Your task to perform on an android device: Go to accessibility settings Image 0: 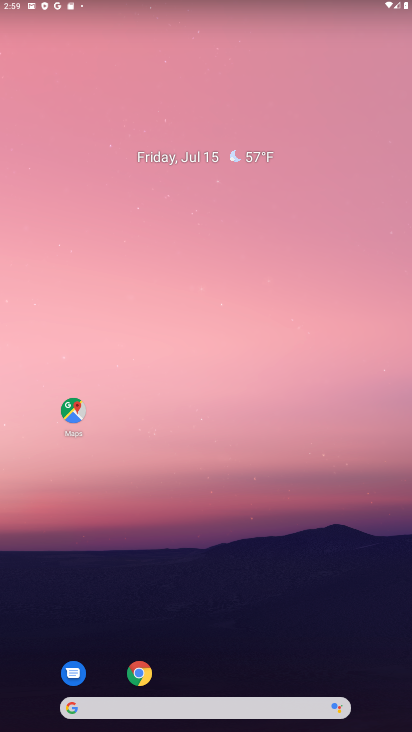
Step 0: click (188, 158)
Your task to perform on an android device: Go to accessibility settings Image 1: 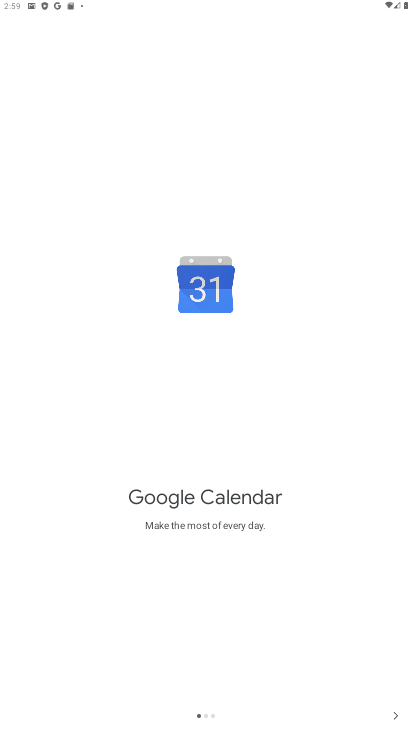
Step 1: press home button
Your task to perform on an android device: Go to accessibility settings Image 2: 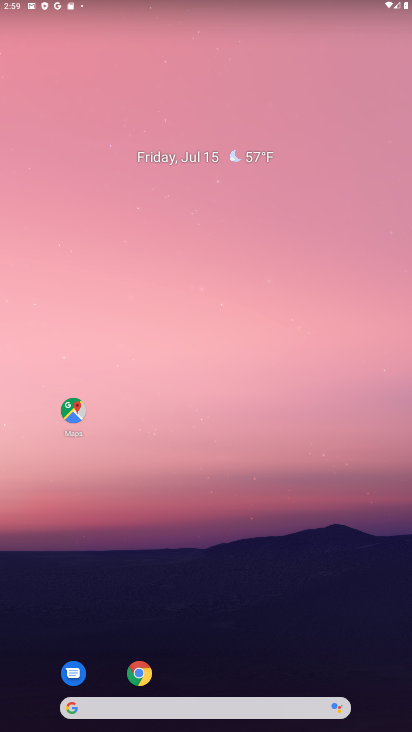
Step 2: drag from (193, 430) to (193, 154)
Your task to perform on an android device: Go to accessibility settings Image 3: 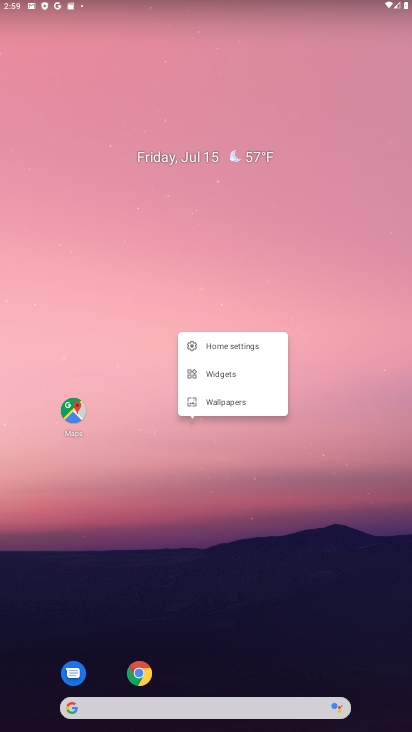
Step 3: click (192, 621)
Your task to perform on an android device: Go to accessibility settings Image 4: 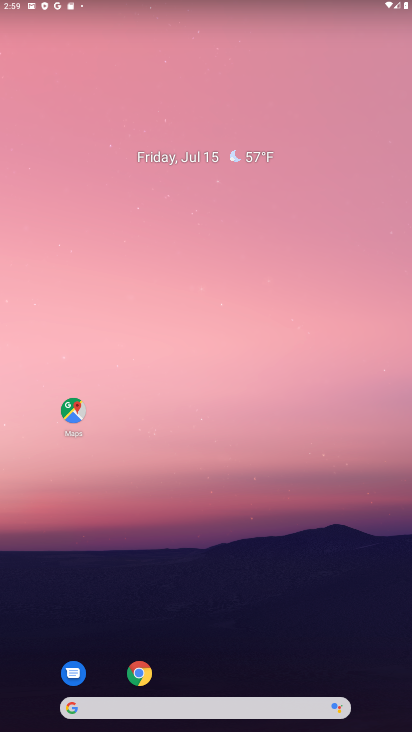
Step 4: drag from (188, 644) to (192, 117)
Your task to perform on an android device: Go to accessibility settings Image 5: 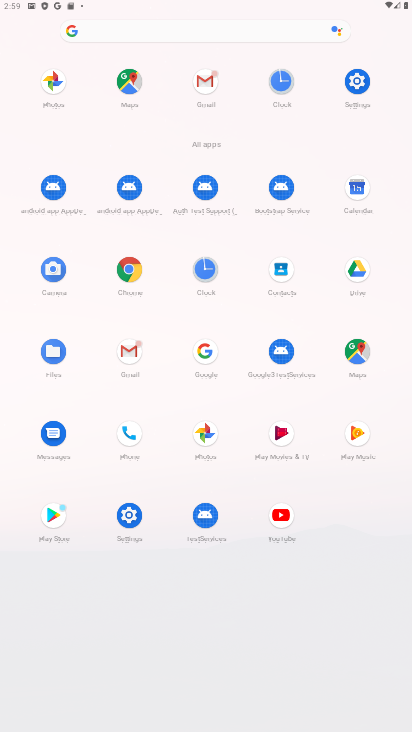
Step 5: click (357, 82)
Your task to perform on an android device: Go to accessibility settings Image 6: 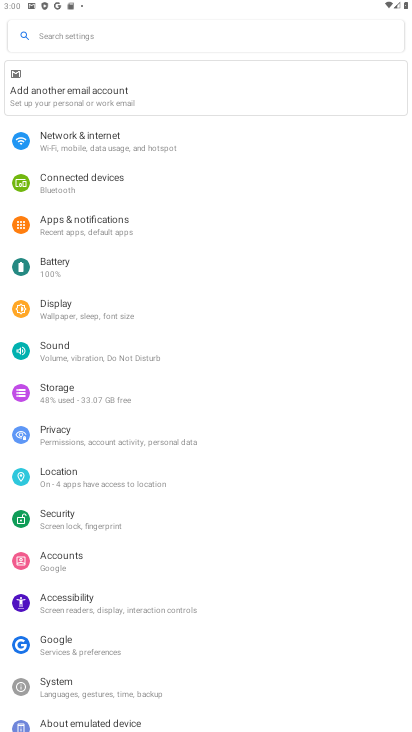
Step 6: click (55, 599)
Your task to perform on an android device: Go to accessibility settings Image 7: 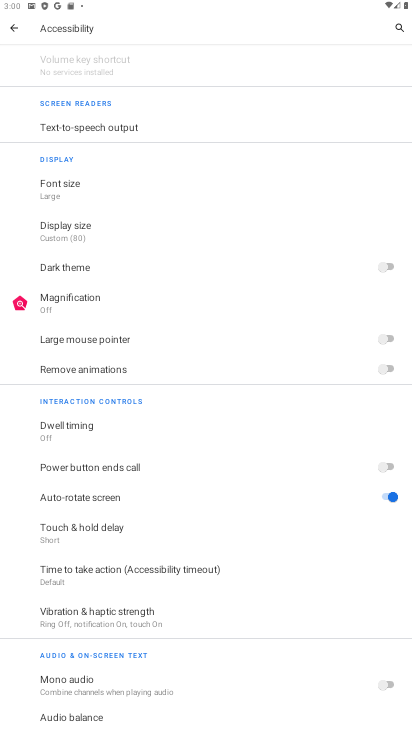
Step 7: task complete